Your task to perform on an android device: Go to ESPN.com Image 0: 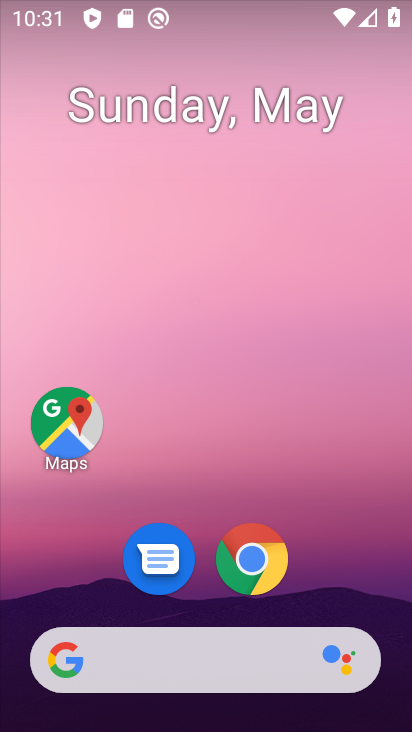
Step 0: click (172, 657)
Your task to perform on an android device: Go to ESPN.com Image 1: 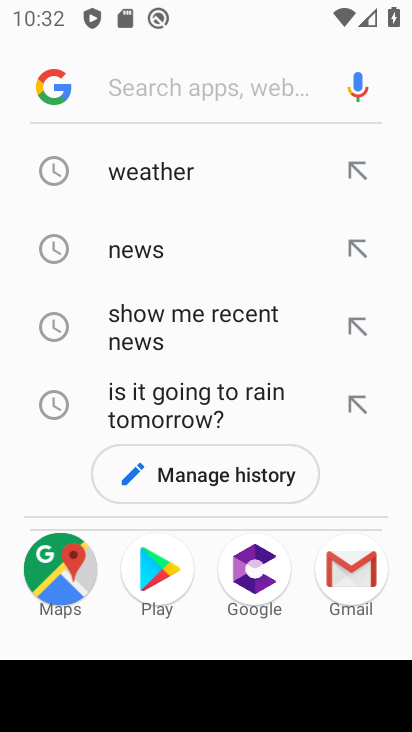
Step 1: type "espn"
Your task to perform on an android device: Go to ESPN.com Image 2: 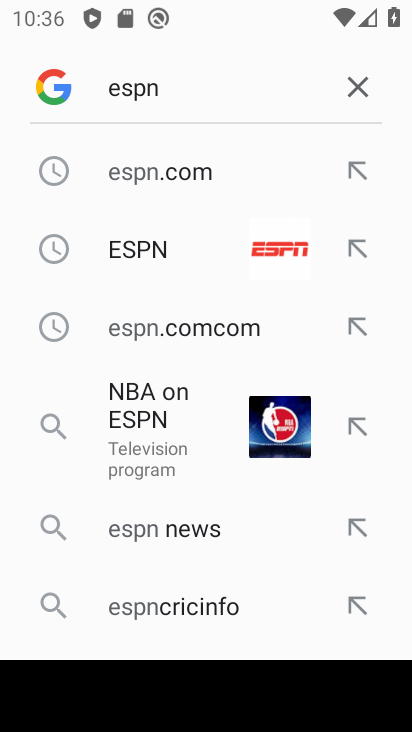
Step 2: click (262, 188)
Your task to perform on an android device: Go to ESPN.com Image 3: 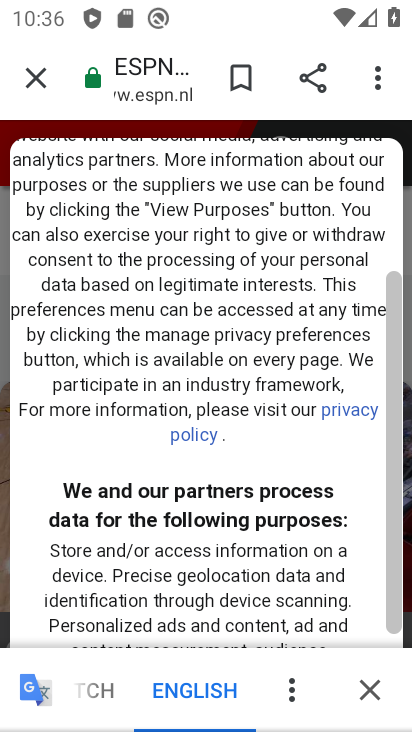
Step 3: task complete